Your task to perform on an android device: Add "dell alienware" to the cart on costco.com, then select checkout. Image 0: 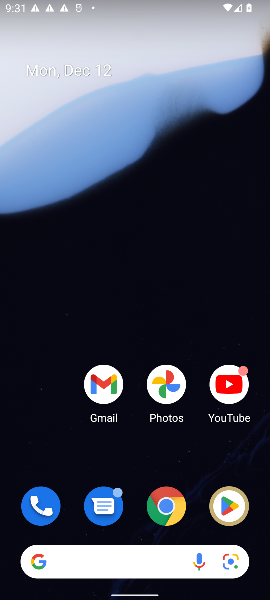
Step 0: click (114, 553)
Your task to perform on an android device: Add "dell alienware" to the cart on costco.com, then select checkout. Image 1: 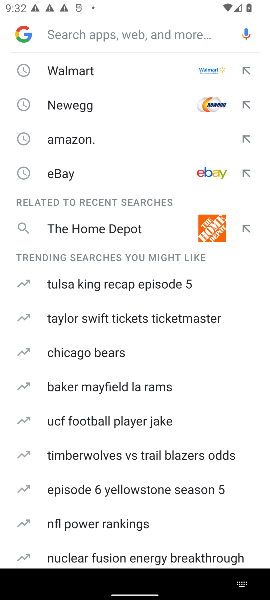
Step 1: type "costco"
Your task to perform on an android device: Add "dell alienware" to the cart on costco.com, then select checkout. Image 2: 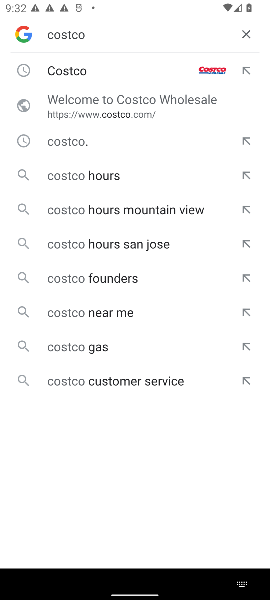
Step 2: click (81, 77)
Your task to perform on an android device: Add "dell alienware" to the cart on costco.com, then select checkout. Image 3: 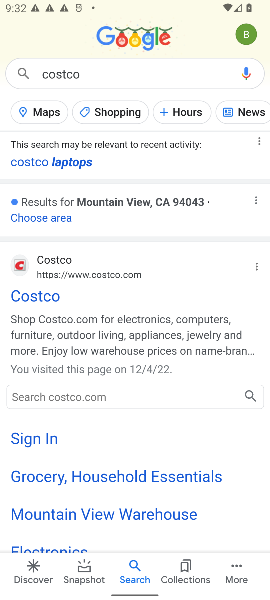
Step 3: click (47, 296)
Your task to perform on an android device: Add "dell alienware" to the cart on costco.com, then select checkout. Image 4: 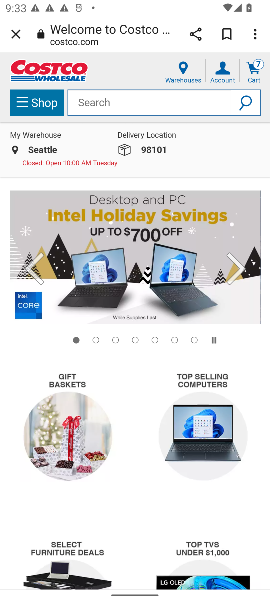
Step 4: click (155, 108)
Your task to perform on an android device: Add "dell alienware" to the cart on costco.com, then select checkout. Image 5: 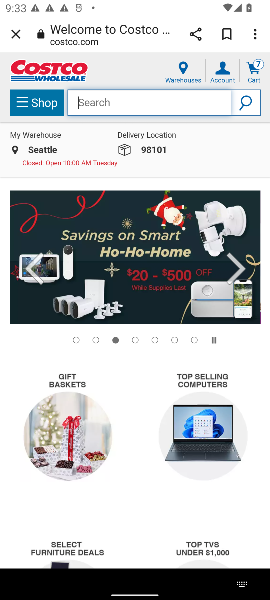
Step 5: type "dell alienware "
Your task to perform on an android device: Add "dell alienware" to the cart on costco.com, then select checkout. Image 6: 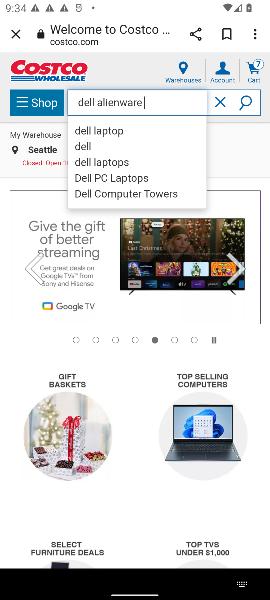
Step 6: click (241, 96)
Your task to perform on an android device: Add "dell alienware" to the cart on costco.com, then select checkout. Image 7: 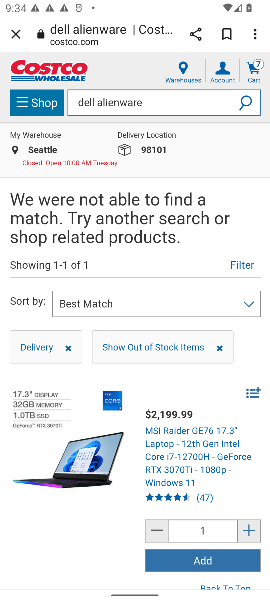
Step 7: click (166, 554)
Your task to perform on an android device: Add "dell alienware" to the cart on costco.com, then select checkout. Image 8: 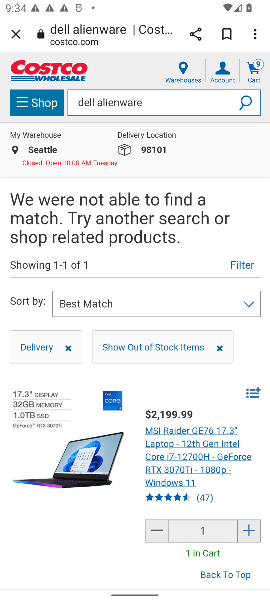
Step 8: task complete